Your task to perform on an android device: Open the calendar app, open the side menu, and click the "Day" option Image 0: 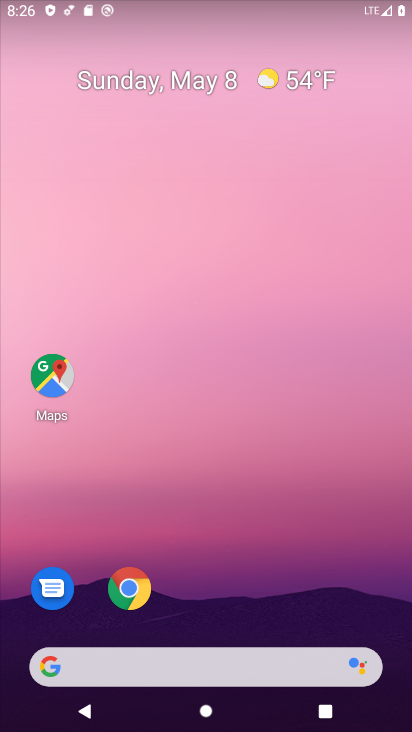
Step 0: drag from (53, 483) to (194, 232)
Your task to perform on an android device: Open the calendar app, open the side menu, and click the "Day" option Image 1: 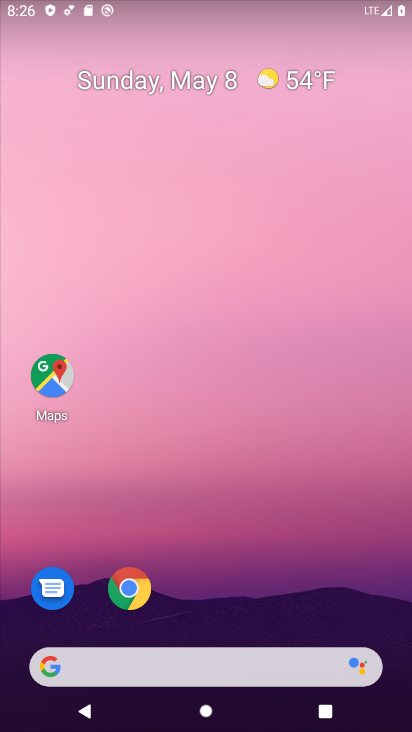
Step 1: drag from (79, 515) to (263, 222)
Your task to perform on an android device: Open the calendar app, open the side menu, and click the "Day" option Image 2: 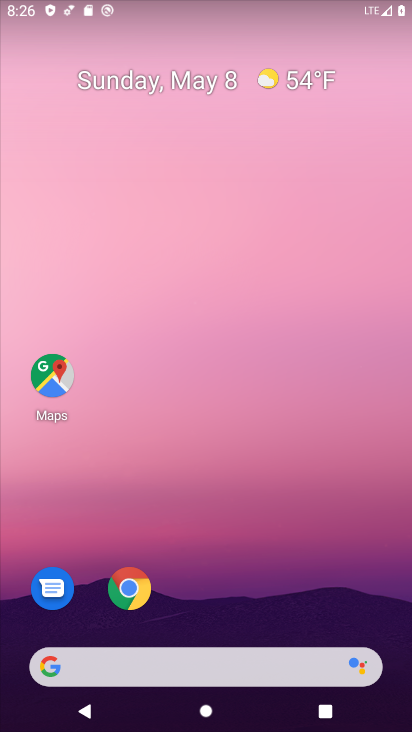
Step 2: drag from (63, 575) to (251, 262)
Your task to perform on an android device: Open the calendar app, open the side menu, and click the "Day" option Image 3: 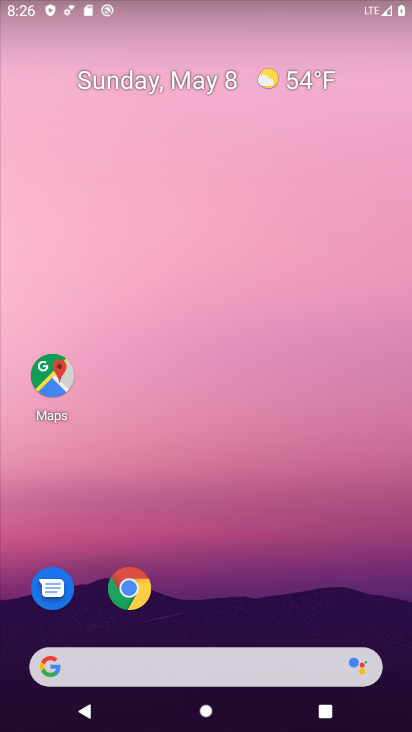
Step 3: drag from (110, 478) to (320, 222)
Your task to perform on an android device: Open the calendar app, open the side menu, and click the "Day" option Image 4: 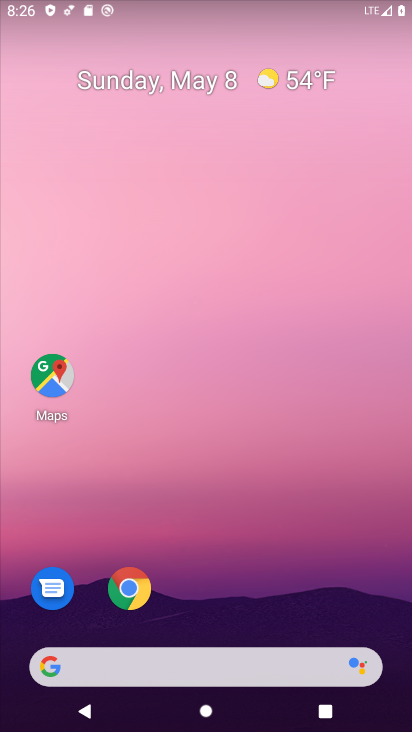
Step 4: drag from (49, 538) to (329, 114)
Your task to perform on an android device: Open the calendar app, open the side menu, and click the "Day" option Image 5: 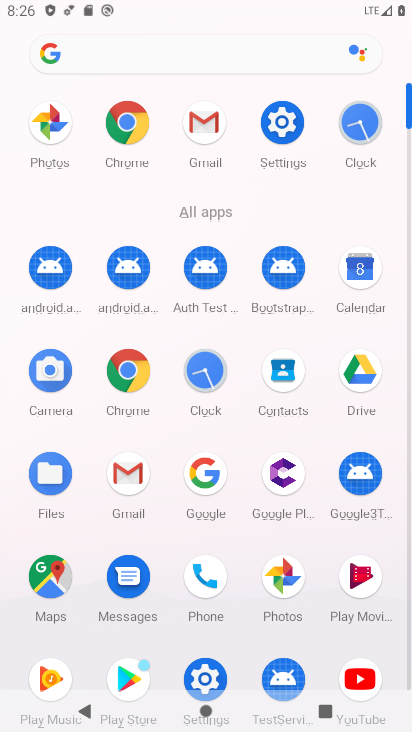
Step 5: click (345, 273)
Your task to perform on an android device: Open the calendar app, open the side menu, and click the "Day" option Image 6: 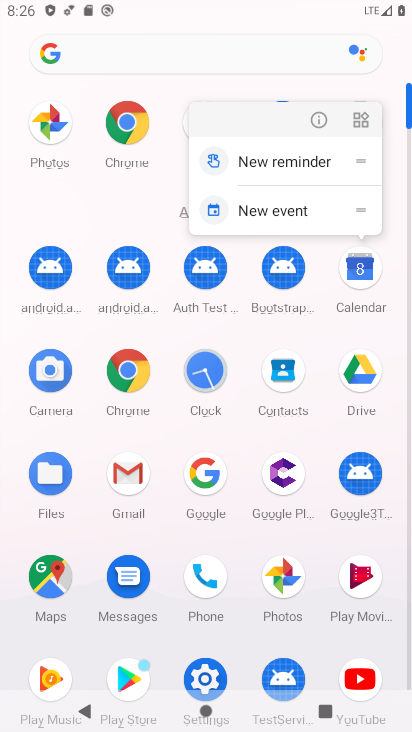
Step 6: click (351, 274)
Your task to perform on an android device: Open the calendar app, open the side menu, and click the "Day" option Image 7: 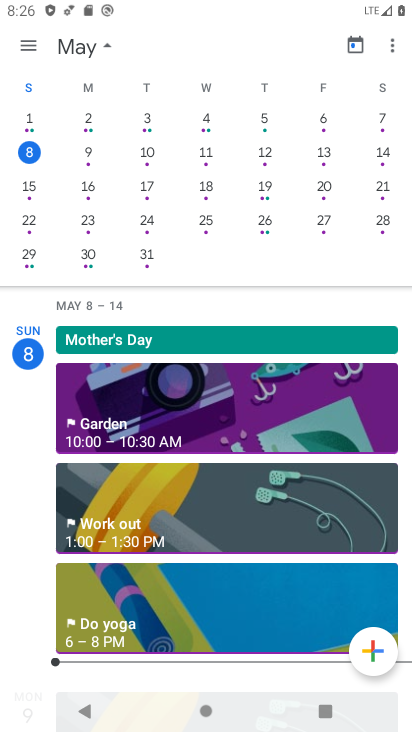
Step 7: click (28, 46)
Your task to perform on an android device: Open the calendar app, open the side menu, and click the "Day" option Image 8: 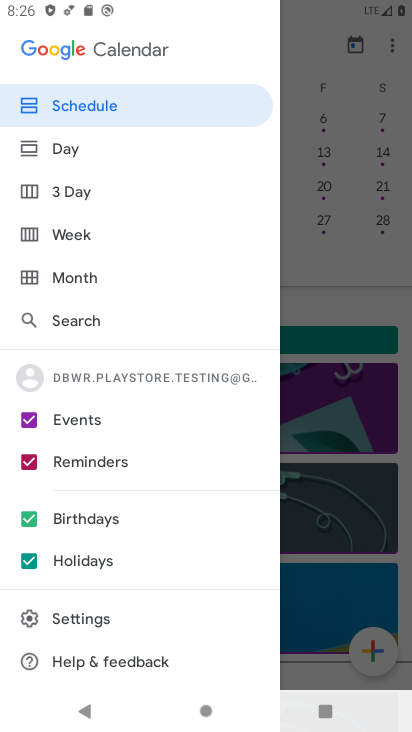
Step 8: click (37, 150)
Your task to perform on an android device: Open the calendar app, open the side menu, and click the "Day" option Image 9: 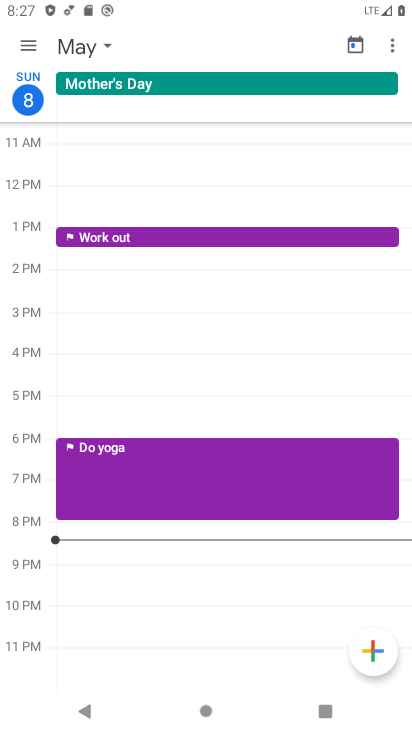
Step 9: task complete